Your task to perform on an android device: set the stopwatch Image 0: 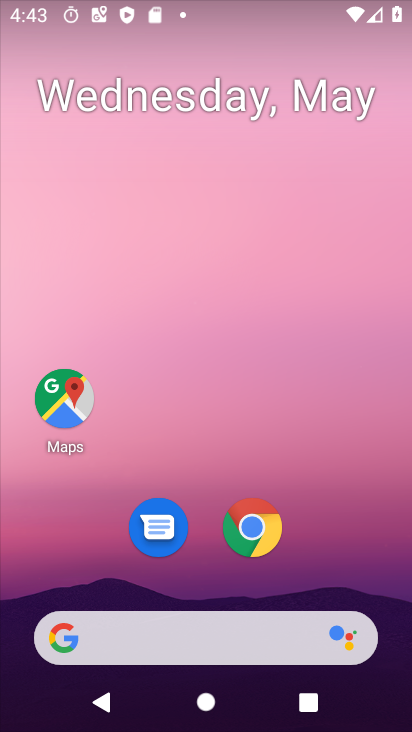
Step 0: drag from (302, 457) to (217, 18)
Your task to perform on an android device: set the stopwatch Image 1: 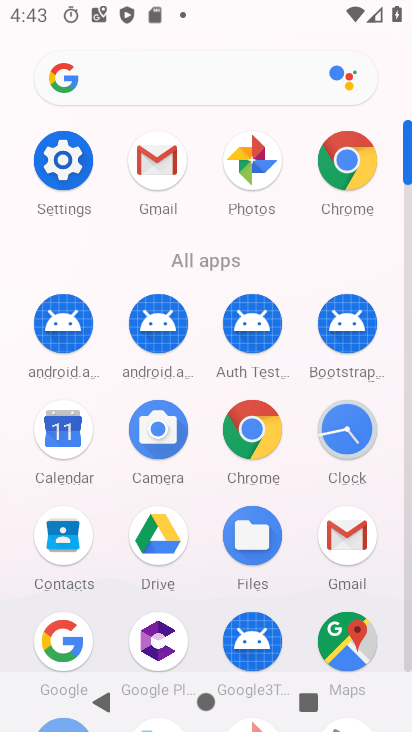
Step 1: click (337, 437)
Your task to perform on an android device: set the stopwatch Image 2: 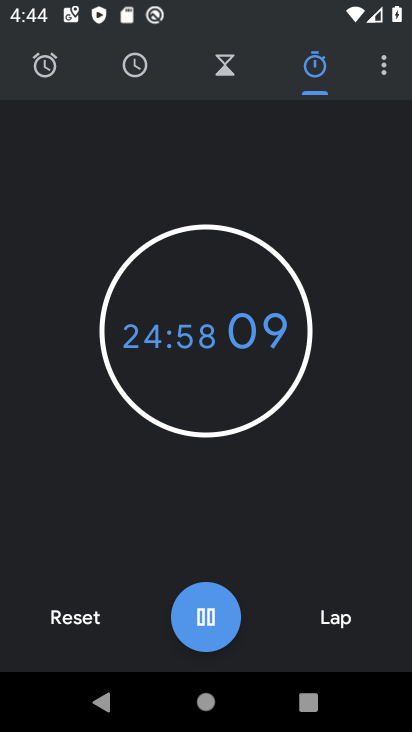
Step 2: click (67, 627)
Your task to perform on an android device: set the stopwatch Image 3: 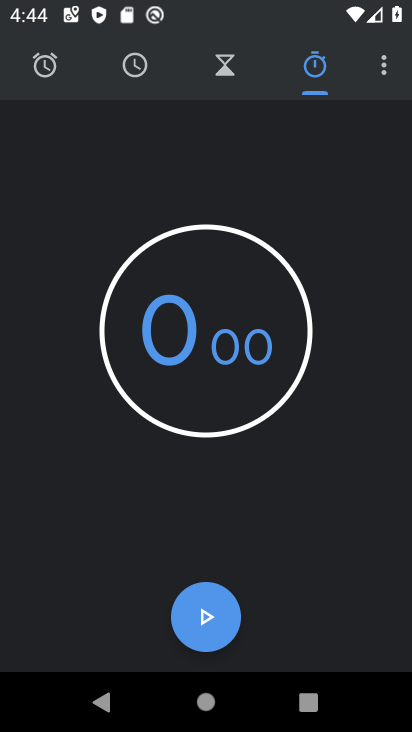
Step 3: click (203, 613)
Your task to perform on an android device: set the stopwatch Image 4: 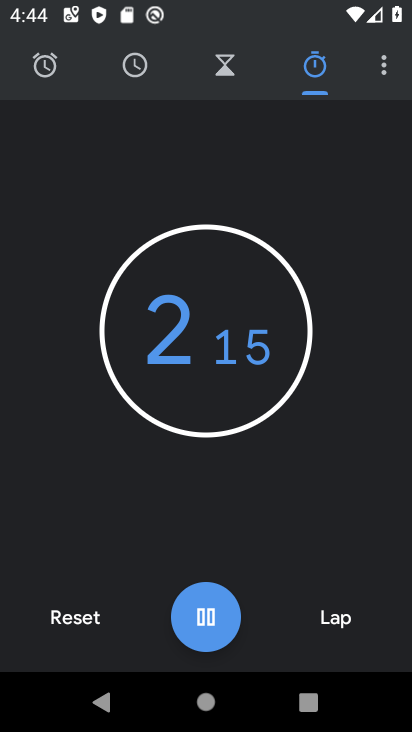
Step 4: task complete